Your task to perform on an android device: move an email to a new category in the gmail app Image 0: 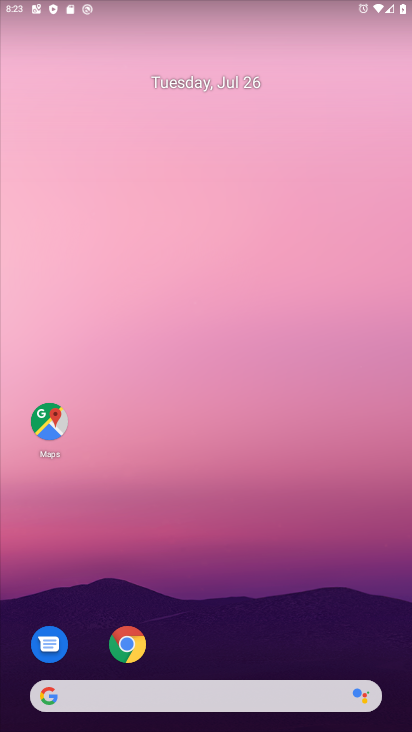
Step 0: drag from (260, 599) to (278, 225)
Your task to perform on an android device: move an email to a new category in the gmail app Image 1: 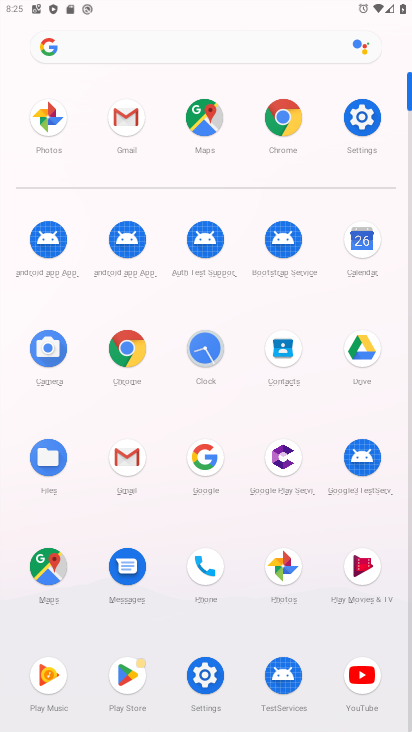
Step 1: click (135, 113)
Your task to perform on an android device: move an email to a new category in the gmail app Image 2: 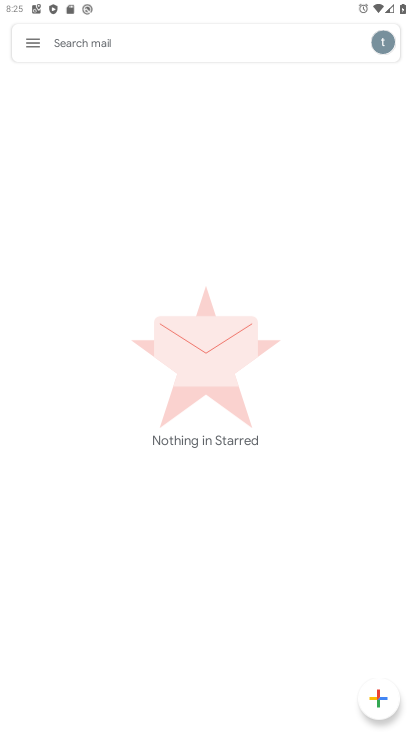
Step 2: click (25, 32)
Your task to perform on an android device: move an email to a new category in the gmail app Image 3: 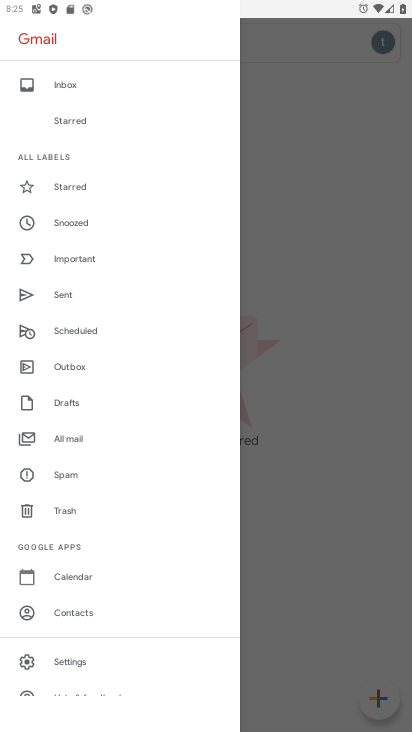
Step 3: click (64, 431)
Your task to perform on an android device: move an email to a new category in the gmail app Image 4: 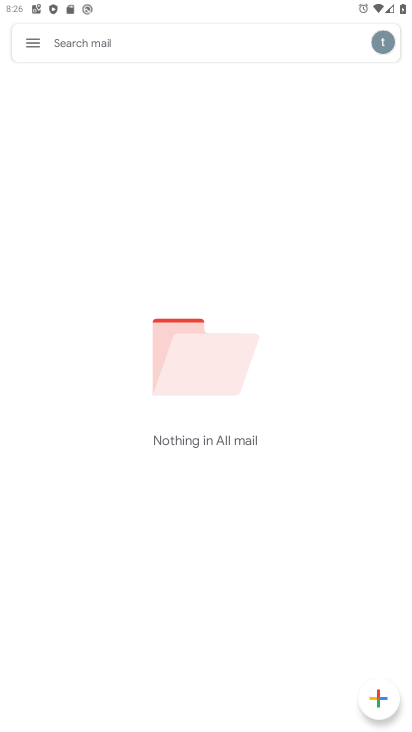
Step 4: task complete